Your task to perform on an android device: Open wifi settings Image 0: 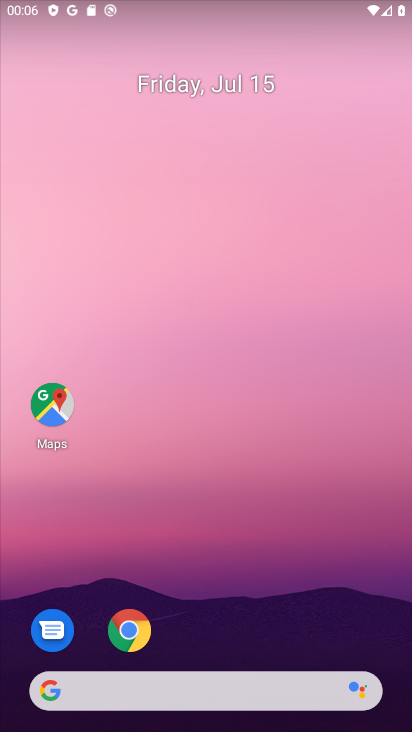
Step 0: drag from (248, 669) to (200, 113)
Your task to perform on an android device: Open wifi settings Image 1: 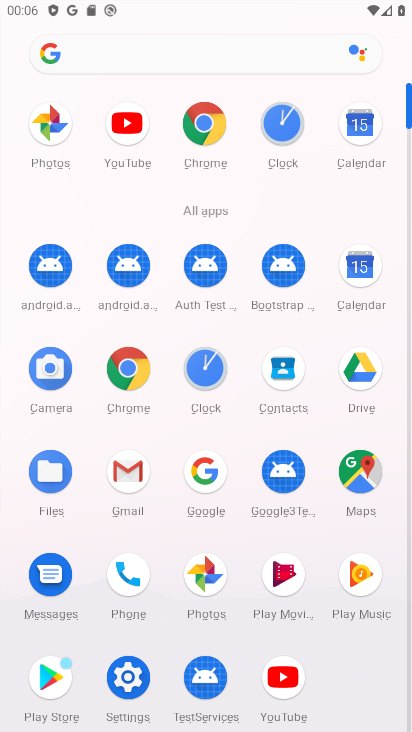
Step 1: click (141, 679)
Your task to perform on an android device: Open wifi settings Image 2: 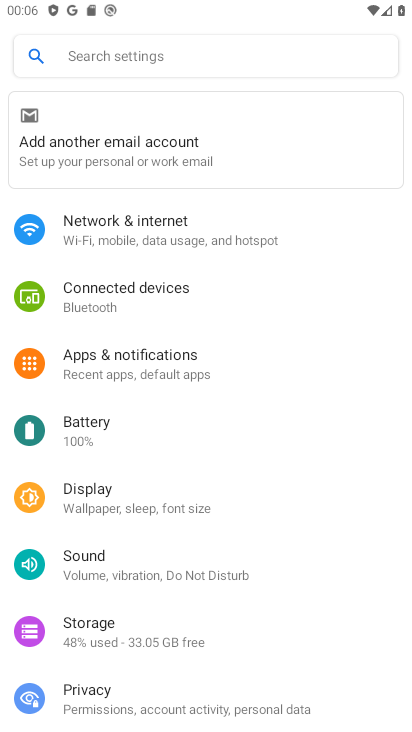
Step 2: click (105, 218)
Your task to perform on an android device: Open wifi settings Image 3: 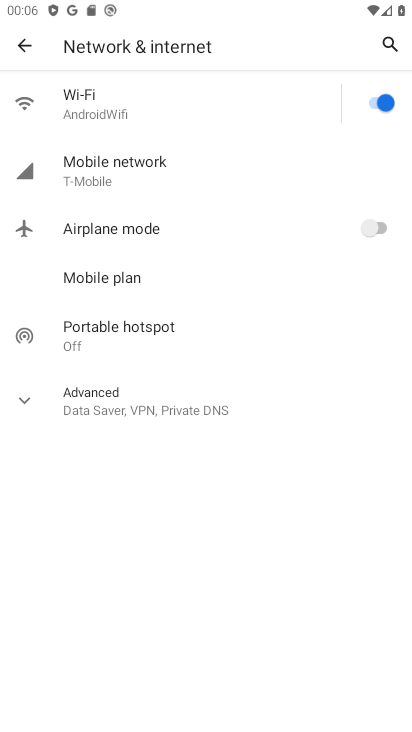
Step 3: click (154, 119)
Your task to perform on an android device: Open wifi settings Image 4: 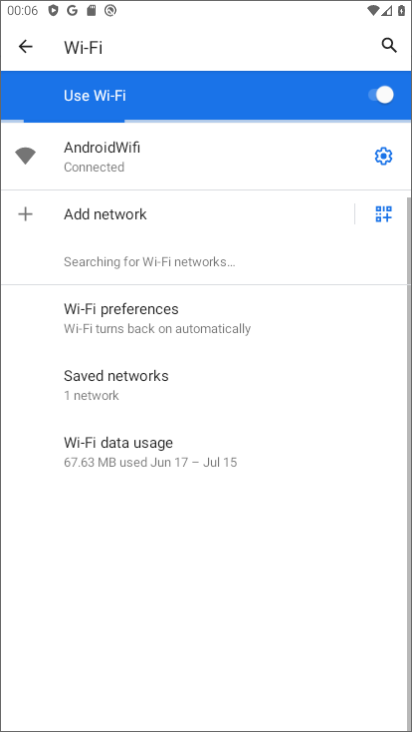
Step 4: task complete